Your task to perform on an android device: When is my next meeting? Image 0: 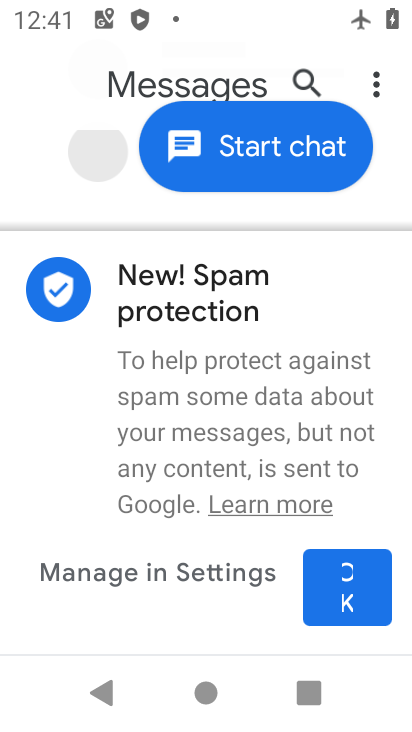
Step 0: press back button
Your task to perform on an android device: When is my next meeting? Image 1: 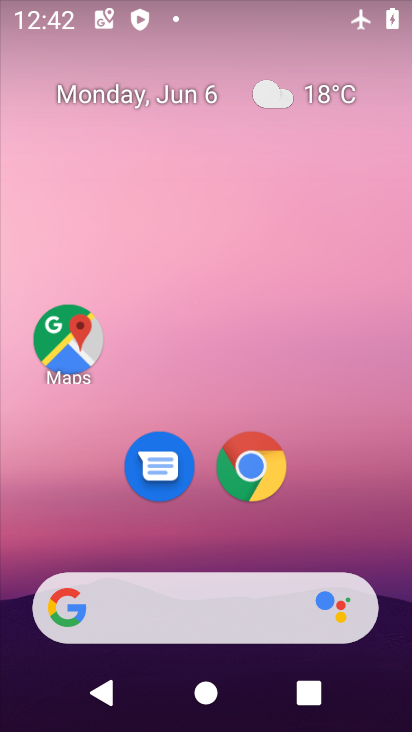
Step 1: drag from (389, 653) to (292, 42)
Your task to perform on an android device: When is my next meeting? Image 2: 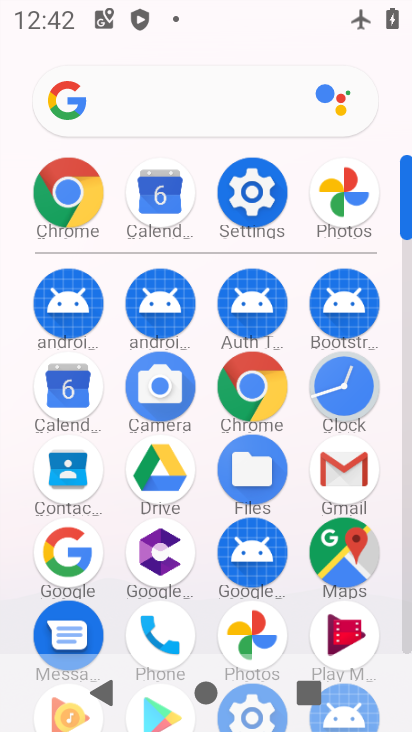
Step 2: drag from (15, 652) to (30, 269)
Your task to perform on an android device: When is my next meeting? Image 3: 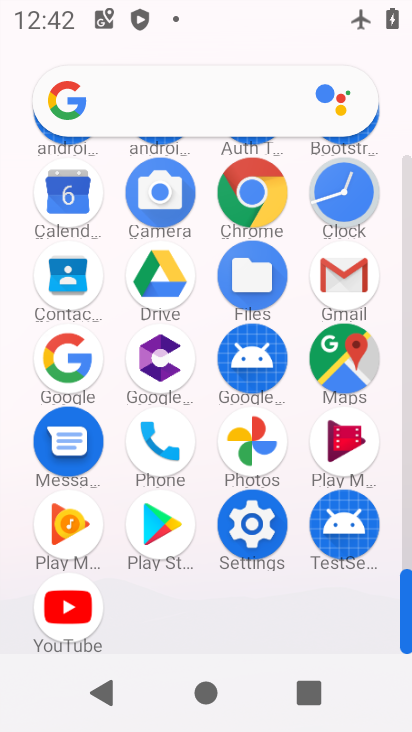
Step 3: click (65, 185)
Your task to perform on an android device: When is my next meeting? Image 4: 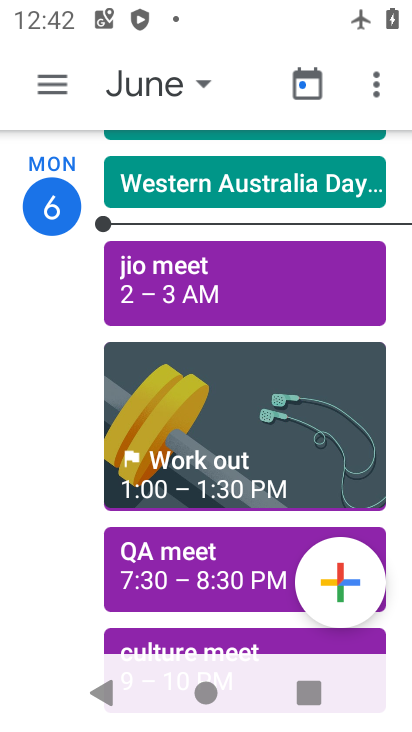
Step 4: click (49, 84)
Your task to perform on an android device: When is my next meeting? Image 5: 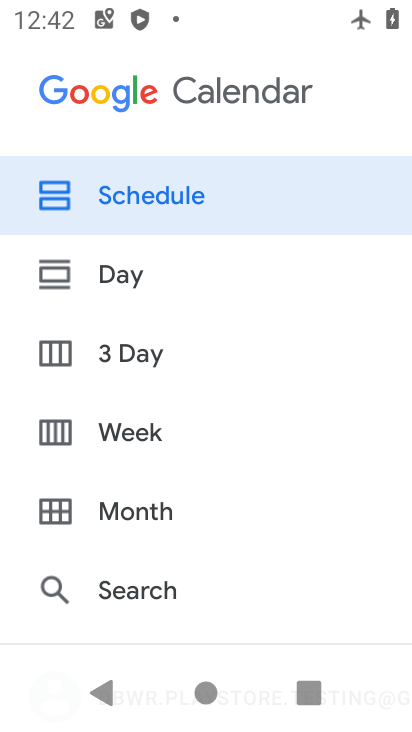
Step 5: click (175, 177)
Your task to perform on an android device: When is my next meeting? Image 6: 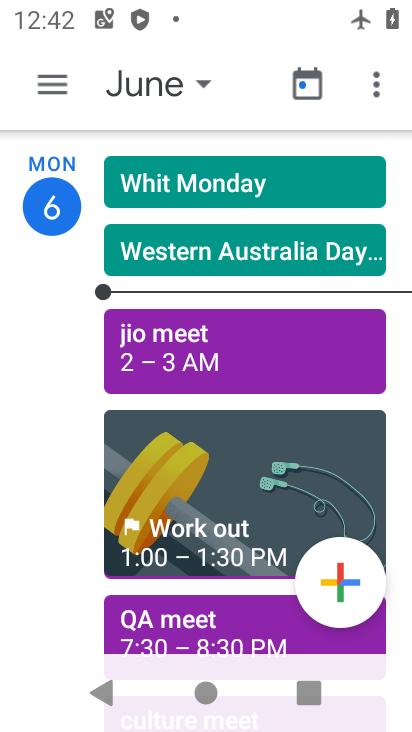
Step 6: task complete